Your task to perform on an android device: Go to Google maps Image 0: 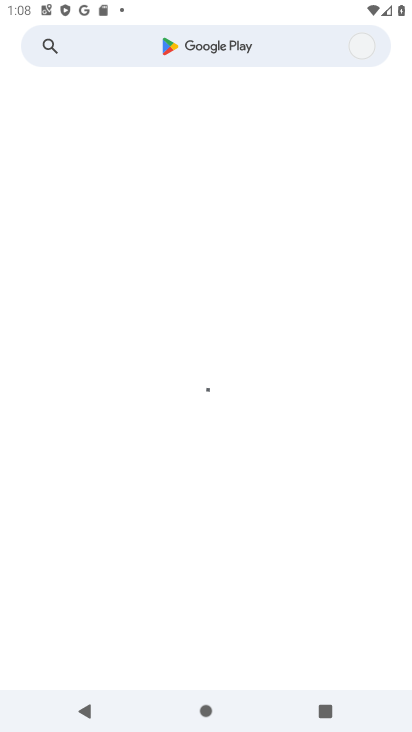
Step 0: press home button
Your task to perform on an android device: Go to Google maps Image 1: 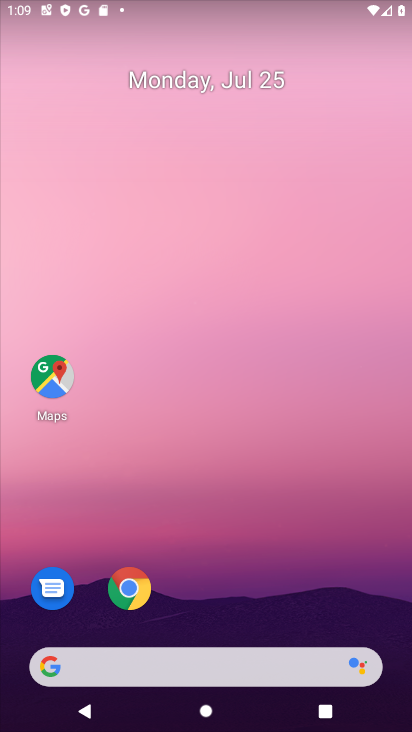
Step 1: click (53, 407)
Your task to perform on an android device: Go to Google maps Image 2: 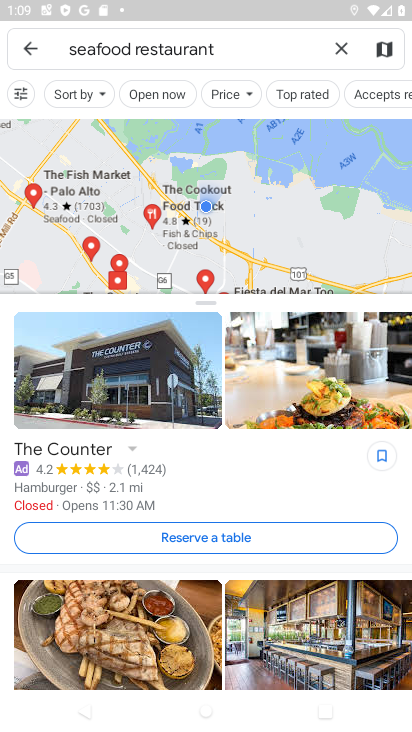
Step 2: task complete